Your task to perform on an android device: search for outdoor chairs on article.com Image 0: 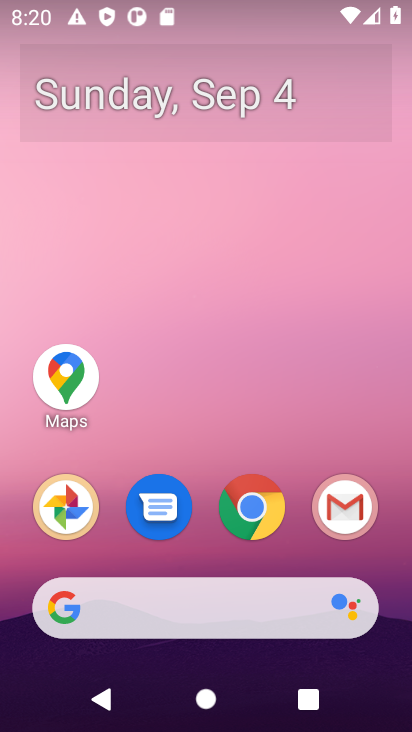
Step 0: click (272, 511)
Your task to perform on an android device: search for outdoor chairs on article.com Image 1: 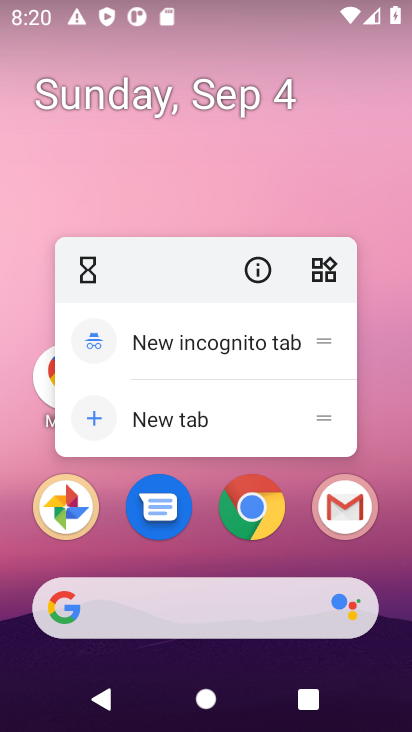
Step 1: click (254, 558)
Your task to perform on an android device: search for outdoor chairs on article.com Image 2: 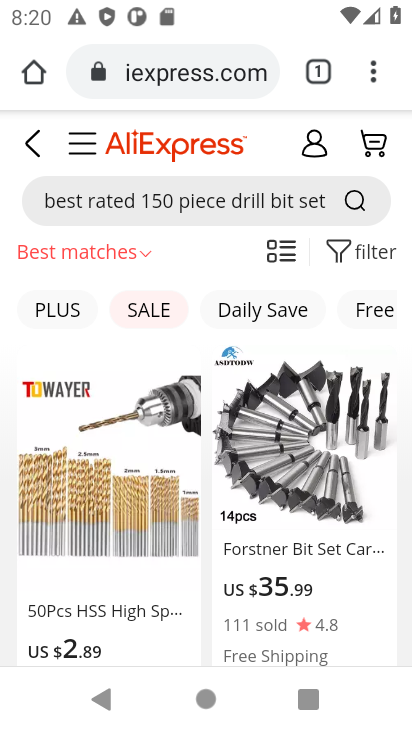
Step 2: click (204, 71)
Your task to perform on an android device: search for outdoor chairs on article.com Image 3: 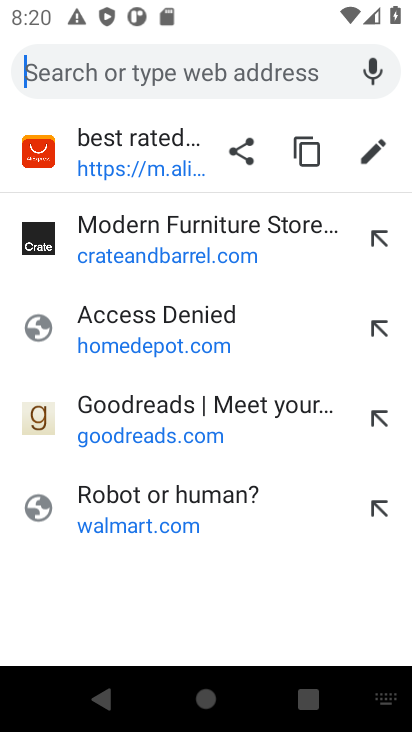
Step 3: type "article.com"
Your task to perform on an android device: search for outdoor chairs on article.com Image 4: 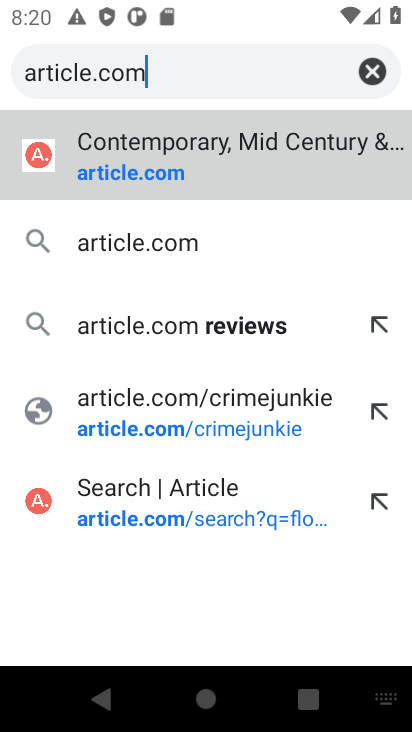
Step 4: click (240, 170)
Your task to perform on an android device: search for outdoor chairs on article.com Image 5: 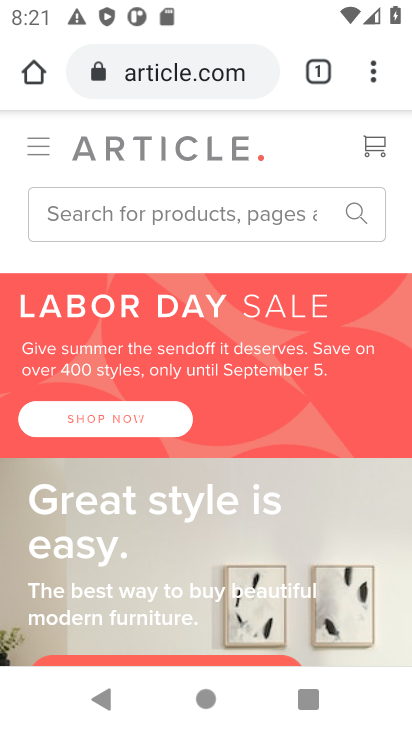
Step 5: click (177, 234)
Your task to perform on an android device: search for outdoor chairs on article.com Image 6: 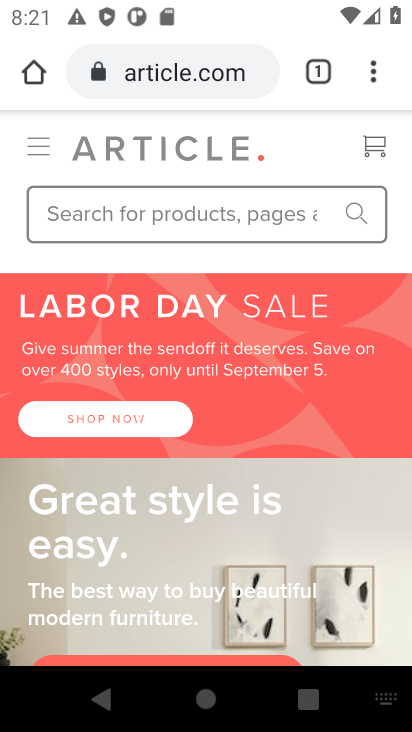
Step 6: type "outdoor chairs"
Your task to perform on an android device: search for outdoor chairs on article.com Image 7: 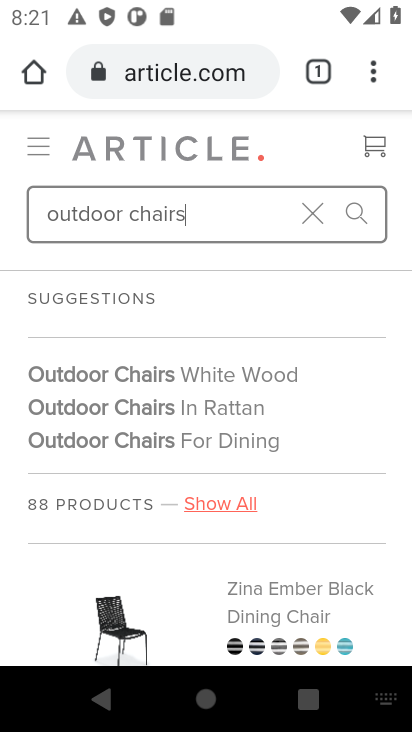
Step 7: press enter
Your task to perform on an android device: search for outdoor chairs on article.com Image 8: 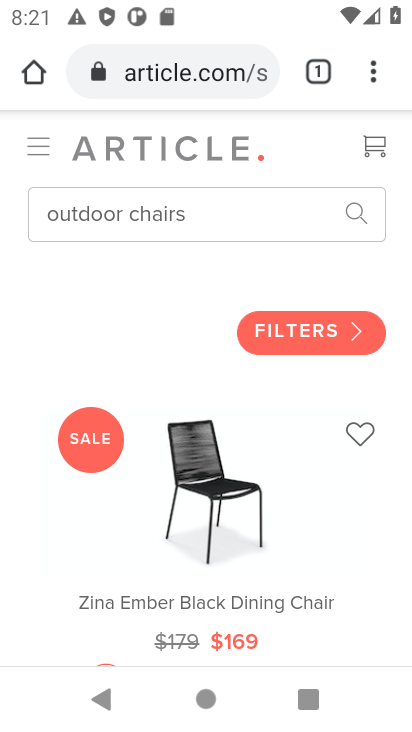
Step 8: task complete